Your task to perform on an android device: What is the speed of light? Image 0: 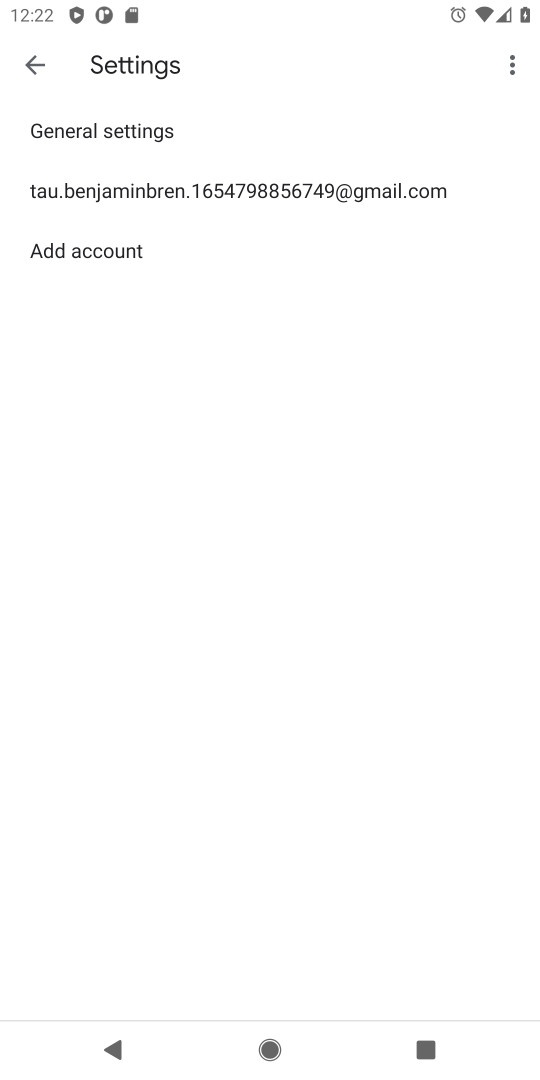
Step 0: press home button
Your task to perform on an android device: What is the speed of light? Image 1: 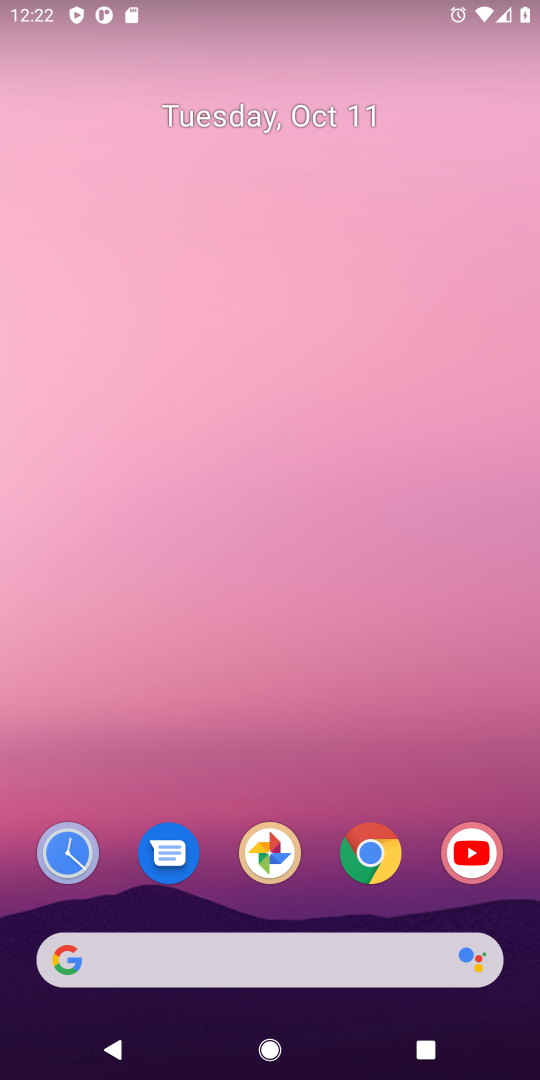
Step 1: drag from (336, 828) to (395, 44)
Your task to perform on an android device: What is the speed of light? Image 2: 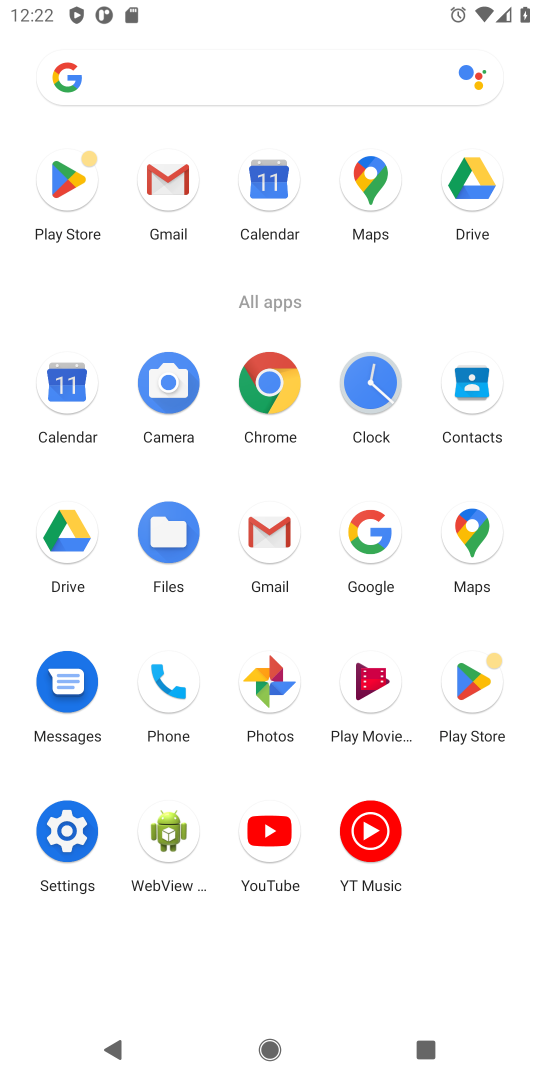
Step 2: click (271, 401)
Your task to perform on an android device: What is the speed of light? Image 3: 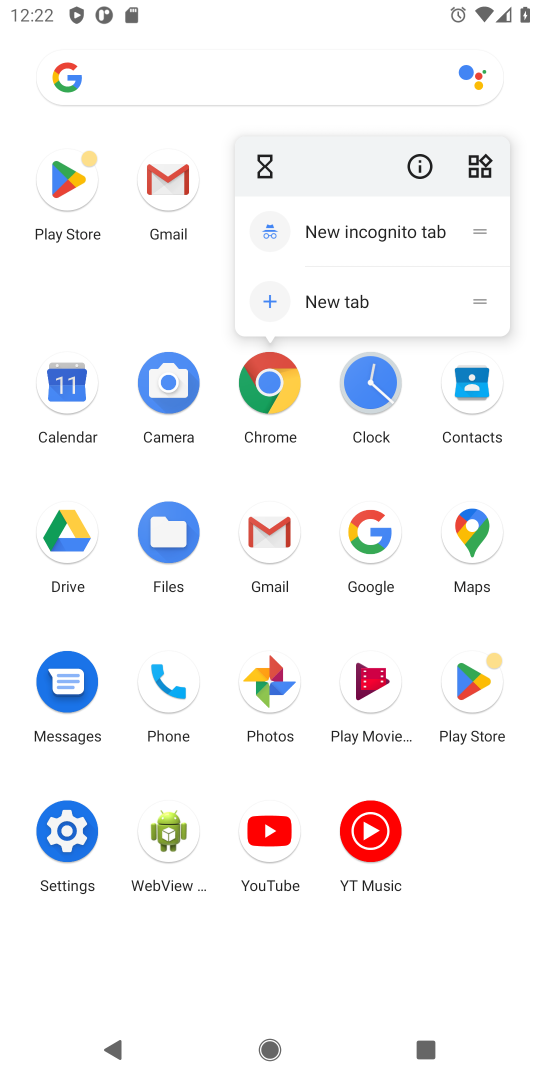
Step 3: click (275, 393)
Your task to perform on an android device: What is the speed of light? Image 4: 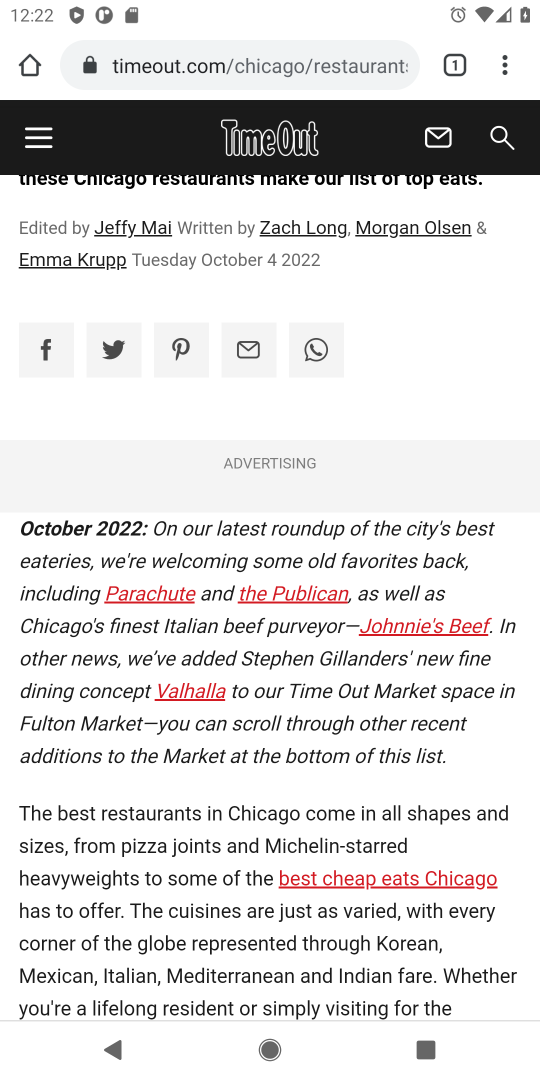
Step 4: click (276, 39)
Your task to perform on an android device: What is the speed of light? Image 5: 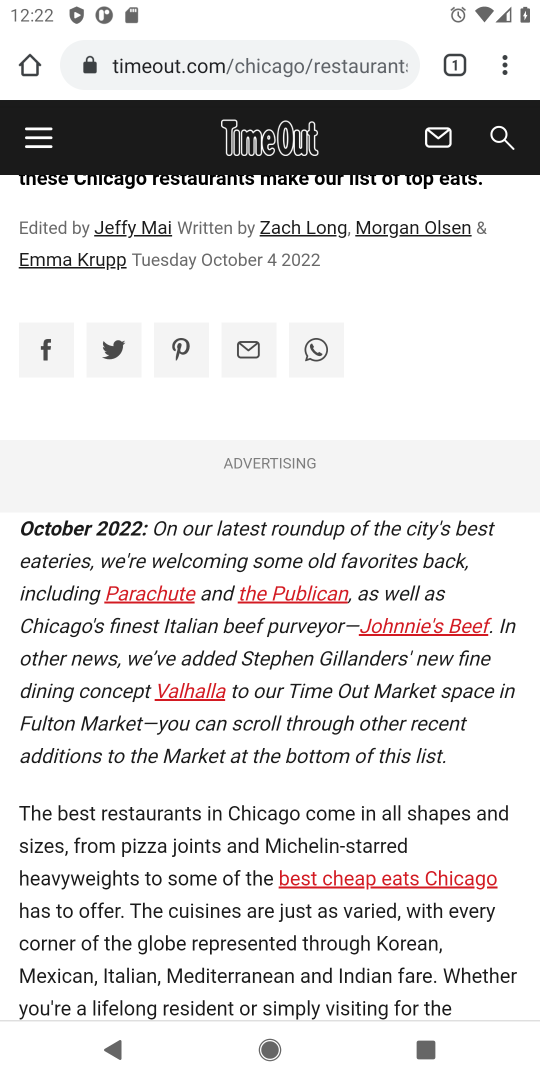
Step 5: click (274, 53)
Your task to perform on an android device: What is the speed of light? Image 6: 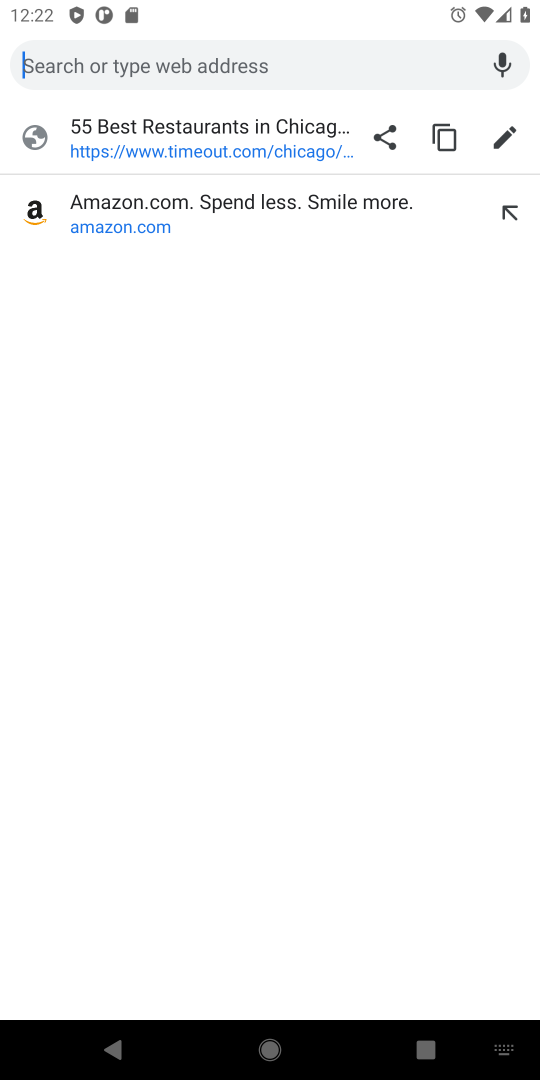
Step 6: type "What is the speed of light?"
Your task to perform on an android device: What is the speed of light? Image 7: 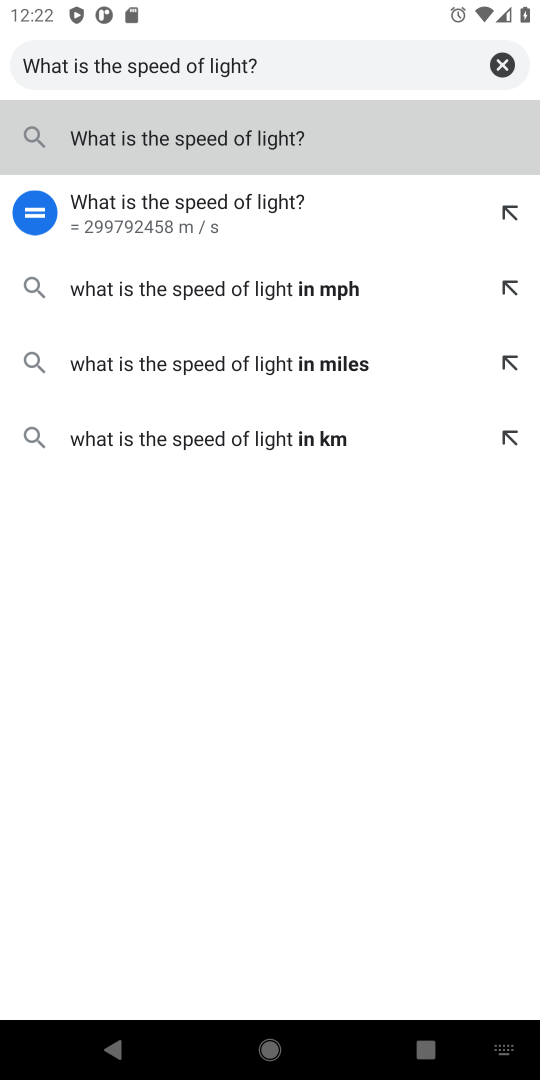
Step 7: type ""
Your task to perform on an android device: What is the speed of light? Image 8: 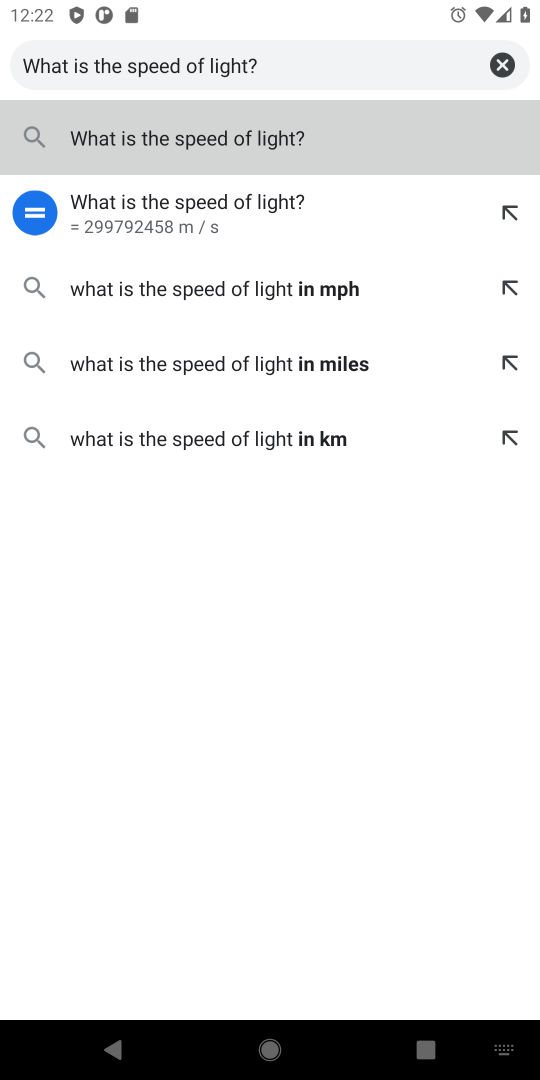
Step 8: type "What is the speed of light?"
Your task to perform on an android device: What is the speed of light? Image 9: 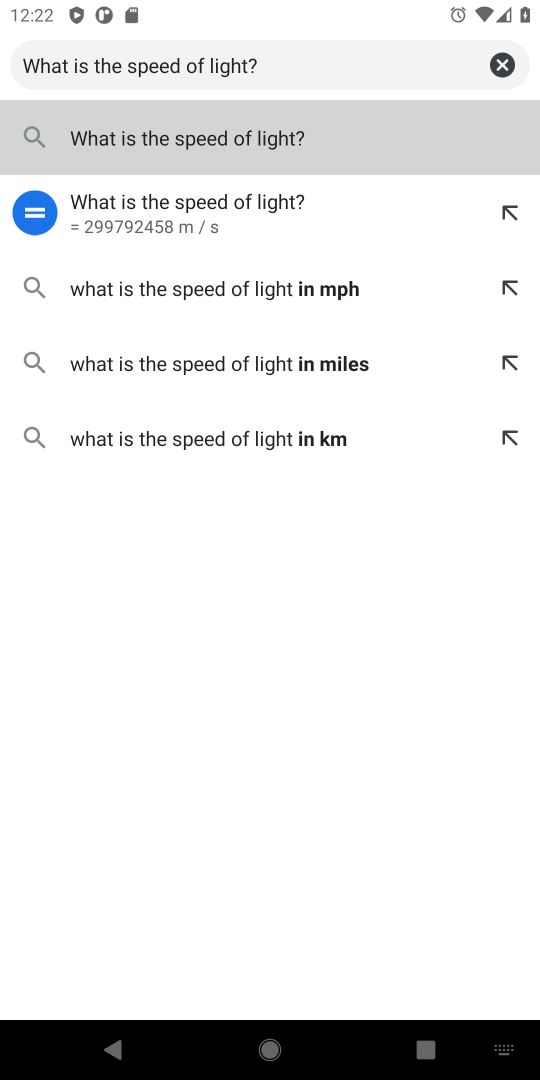
Step 9: click (181, 226)
Your task to perform on an android device: What is the speed of light? Image 10: 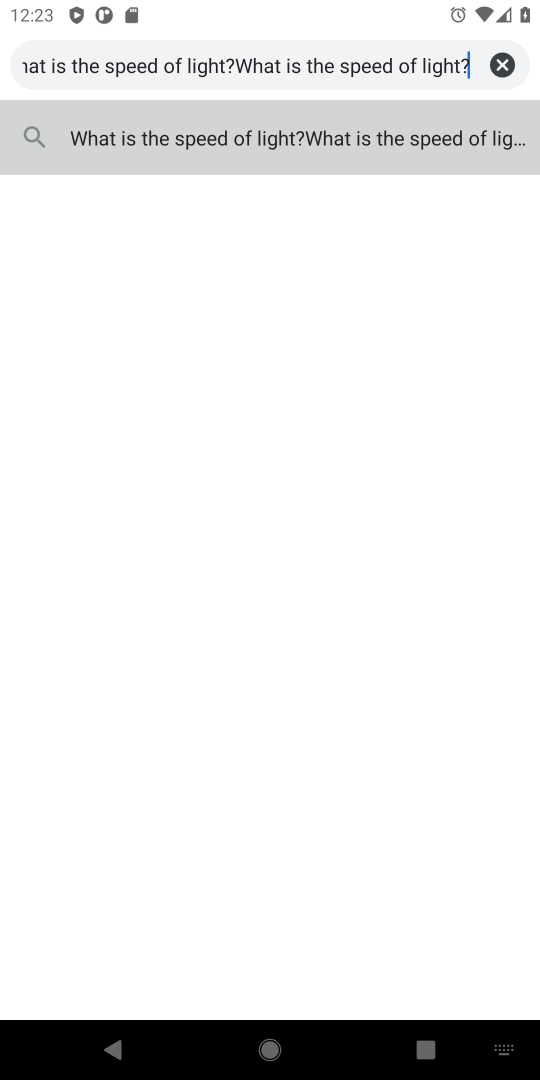
Step 10: press enter
Your task to perform on an android device: What is the speed of light? Image 11: 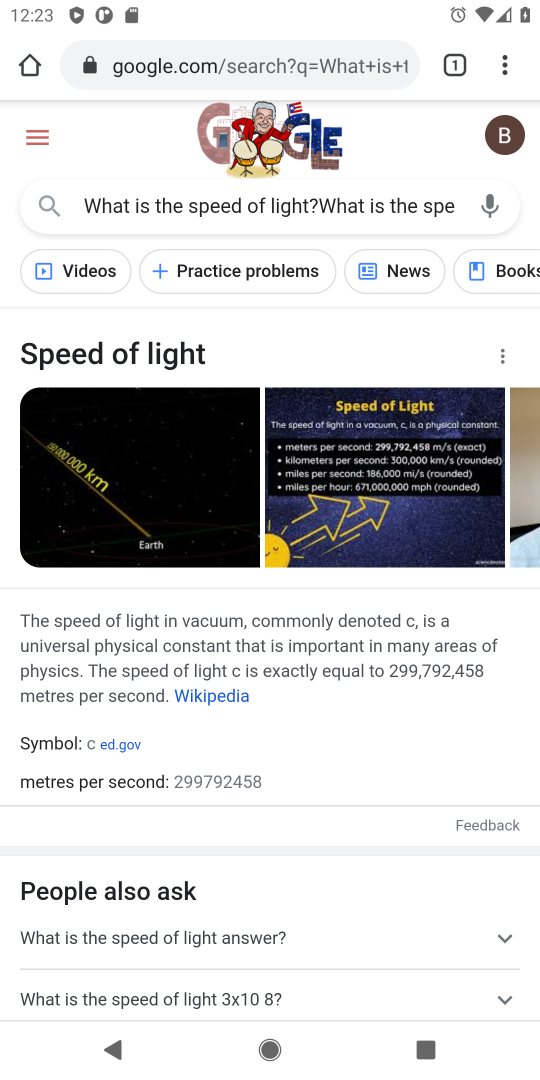
Step 11: click (227, 688)
Your task to perform on an android device: What is the speed of light? Image 12: 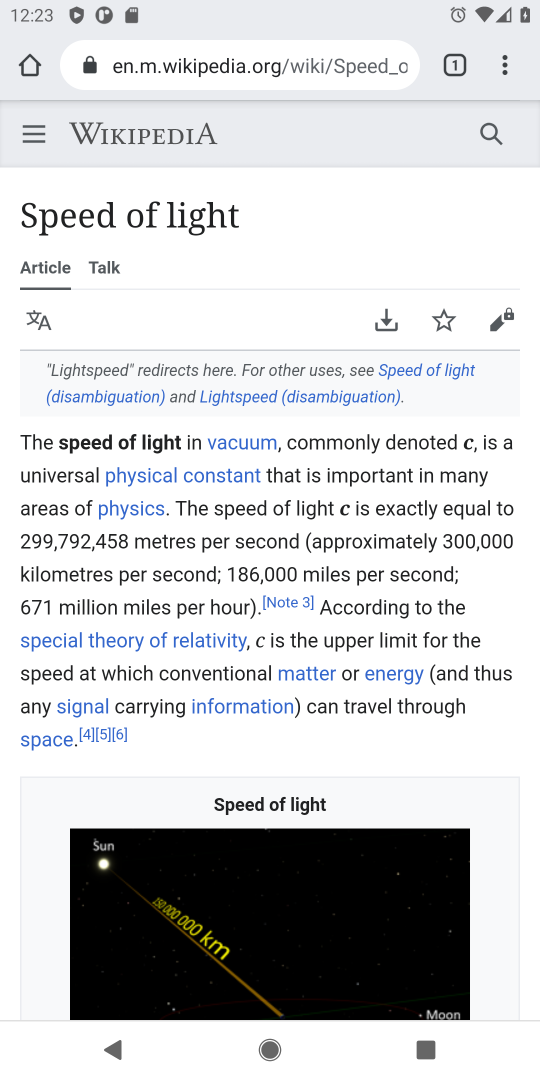
Step 12: drag from (345, 802) to (357, 408)
Your task to perform on an android device: What is the speed of light? Image 13: 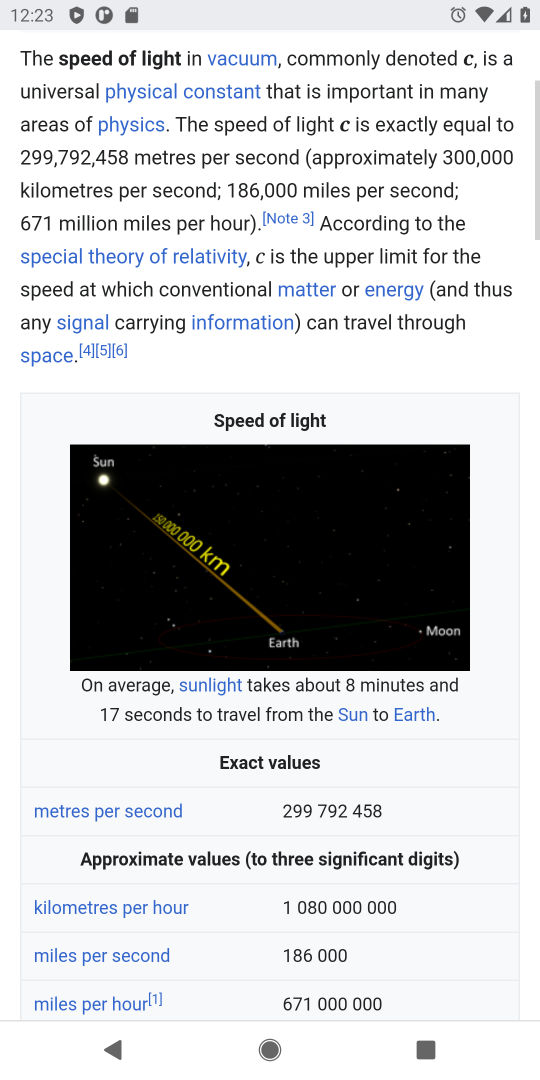
Step 13: drag from (437, 749) to (393, 361)
Your task to perform on an android device: What is the speed of light? Image 14: 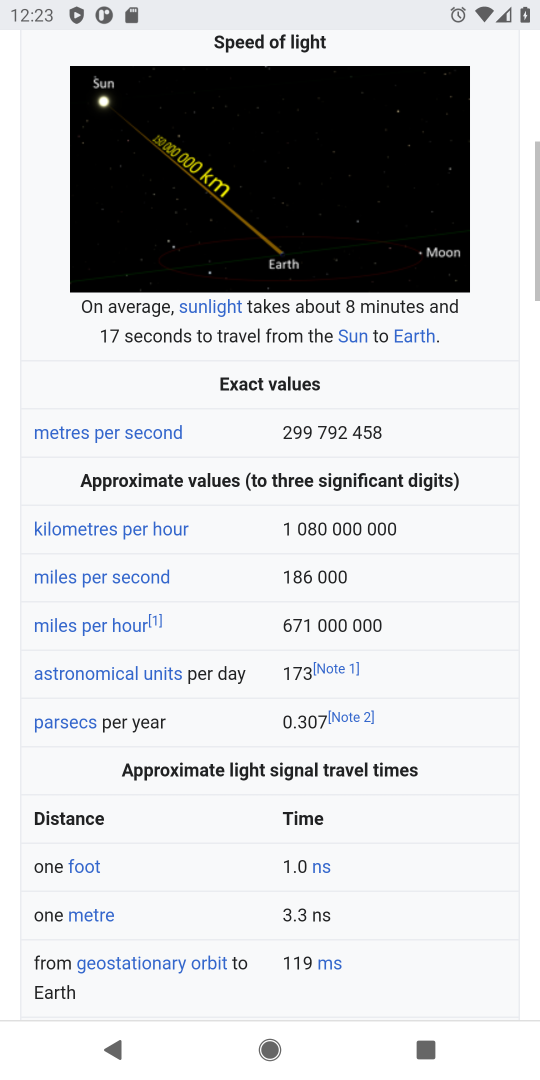
Step 14: drag from (510, 655) to (425, 382)
Your task to perform on an android device: What is the speed of light? Image 15: 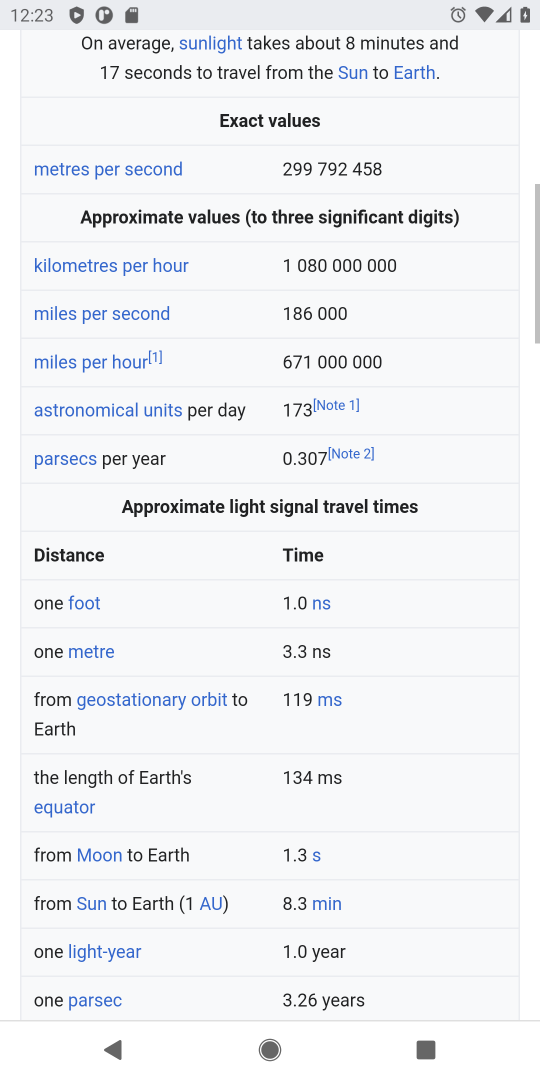
Step 15: drag from (396, 697) to (414, 446)
Your task to perform on an android device: What is the speed of light? Image 16: 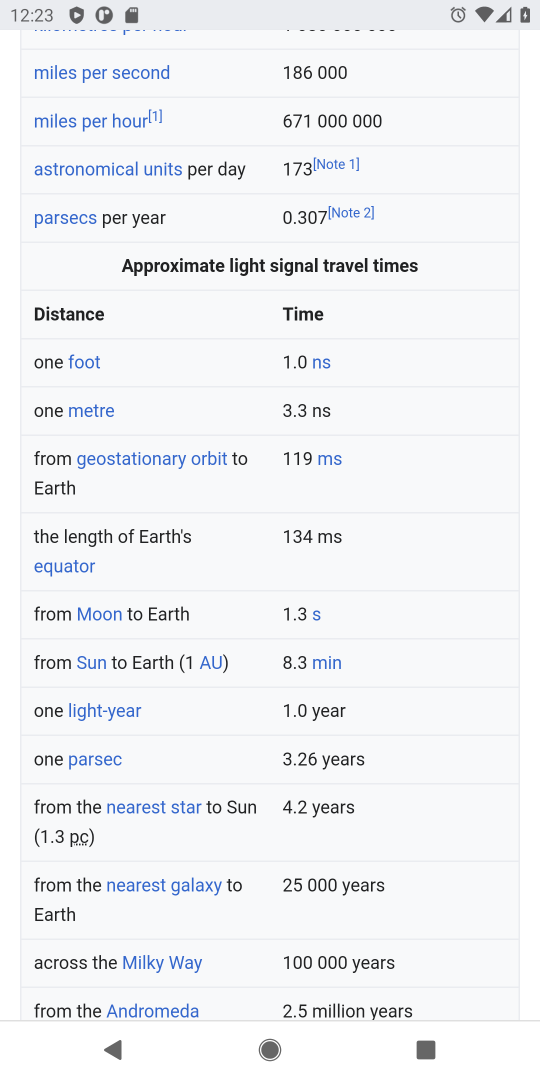
Step 16: drag from (425, 777) to (401, 593)
Your task to perform on an android device: What is the speed of light? Image 17: 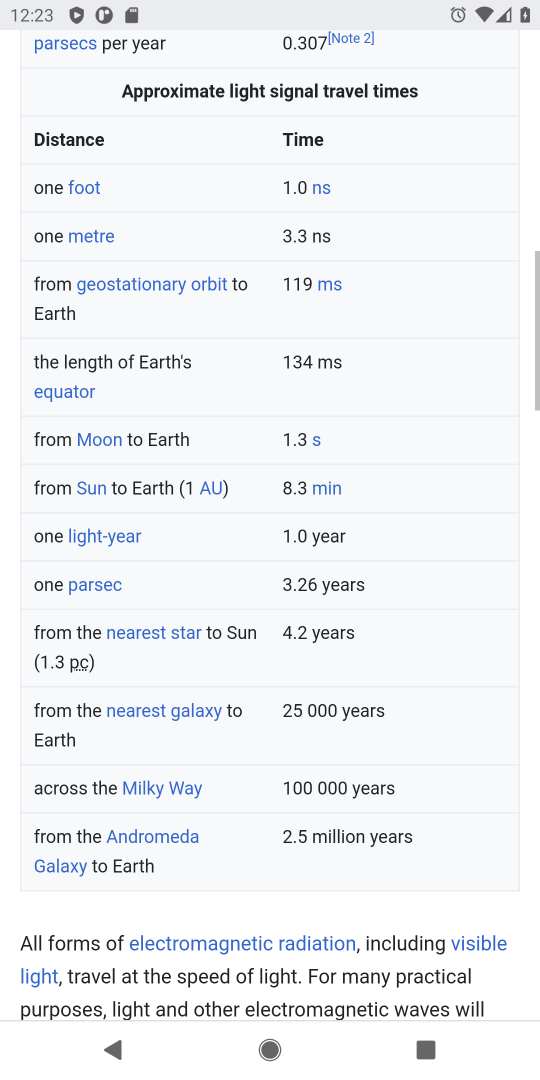
Step 17: drag from (395, 843) to (366, 661)
Your task to perform on an android device: What is the speed of light? Image 18: 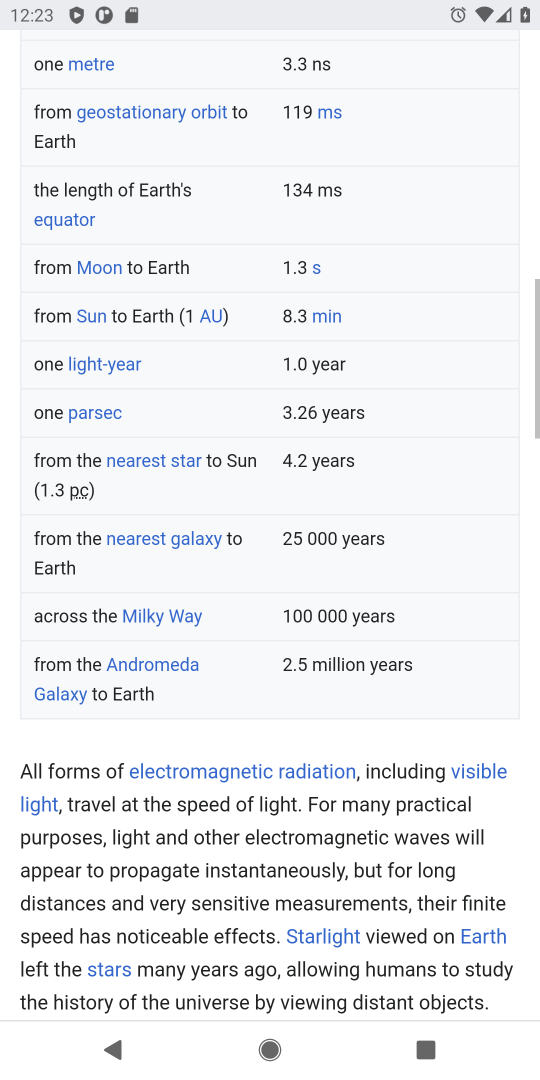
Step 18: drag from (371, 870) to (360, 607)
Your task to perform on an android device: What is the speed of light? Image 19: 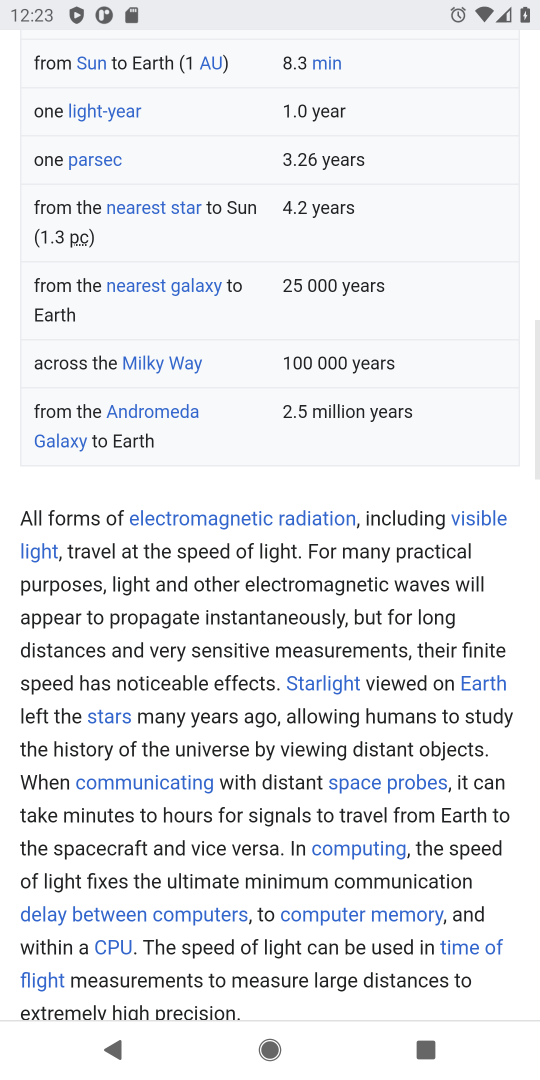
Step 19: drag from (432, 919) to (374, 650)
Your task to perform on an android device: What is the speed of light? Image 20: 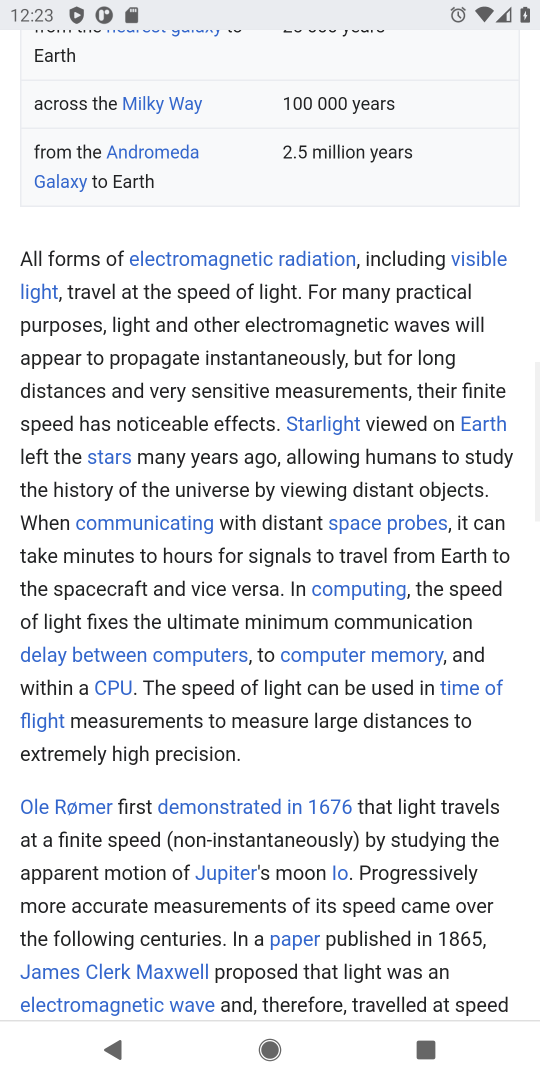
Step 20: drag from (403, 807) to (398, 664)
Your task to perform on an android device: What is the speed of light? Image 21: 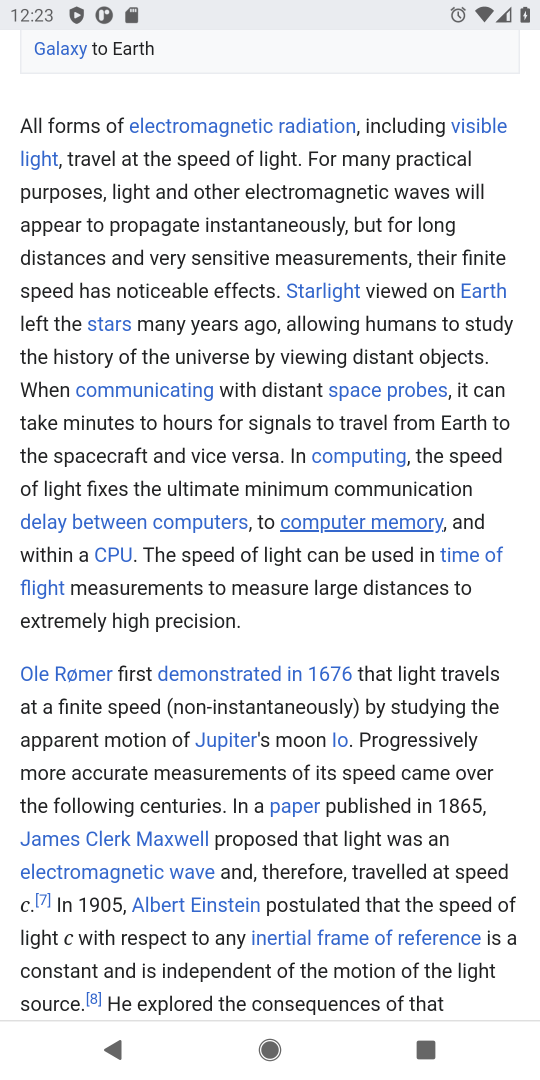
Step 21: drag from (377, 700) to (386, 343)
Your task to perform on an android device: What is the speed of light? Image 22: 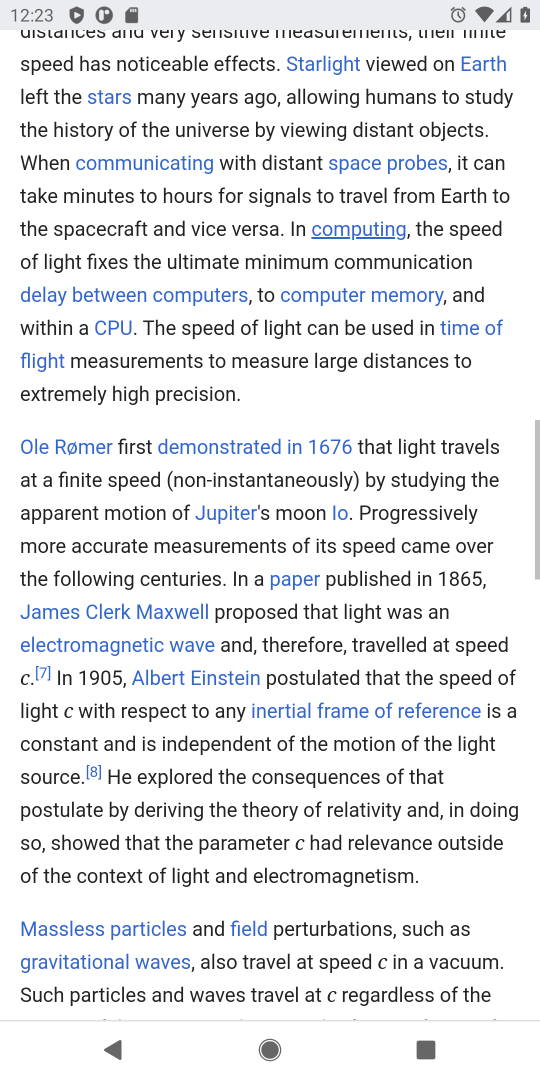
Step 22: drag from (364, 675) to (395, 362)
Your task to perform on an android device: What is the speed of light? Image 23: 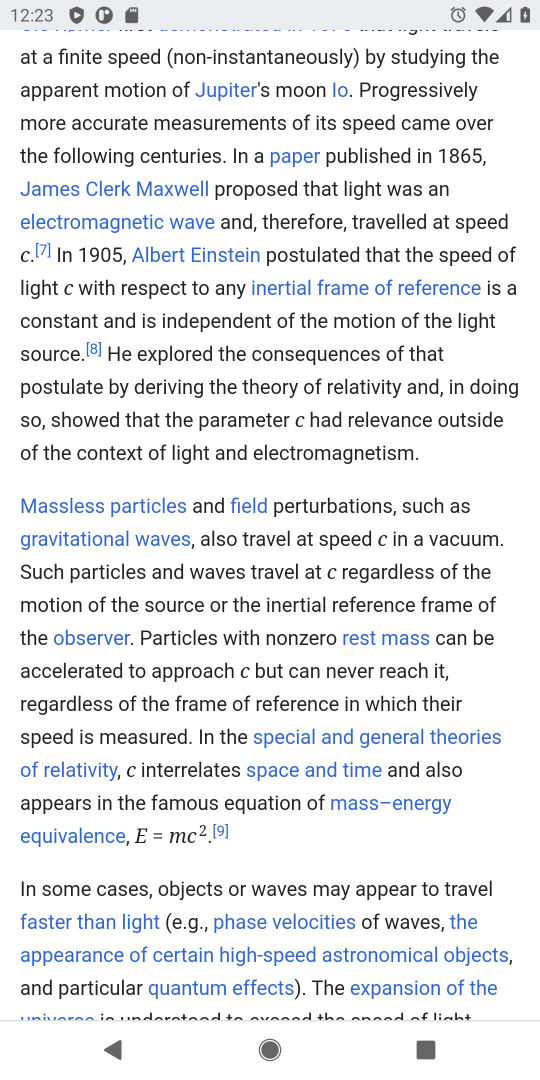
Step 23: drag from (356, 718) to (402, 543)
Your task to perform on an android device: What is the speed of light? Image 24: 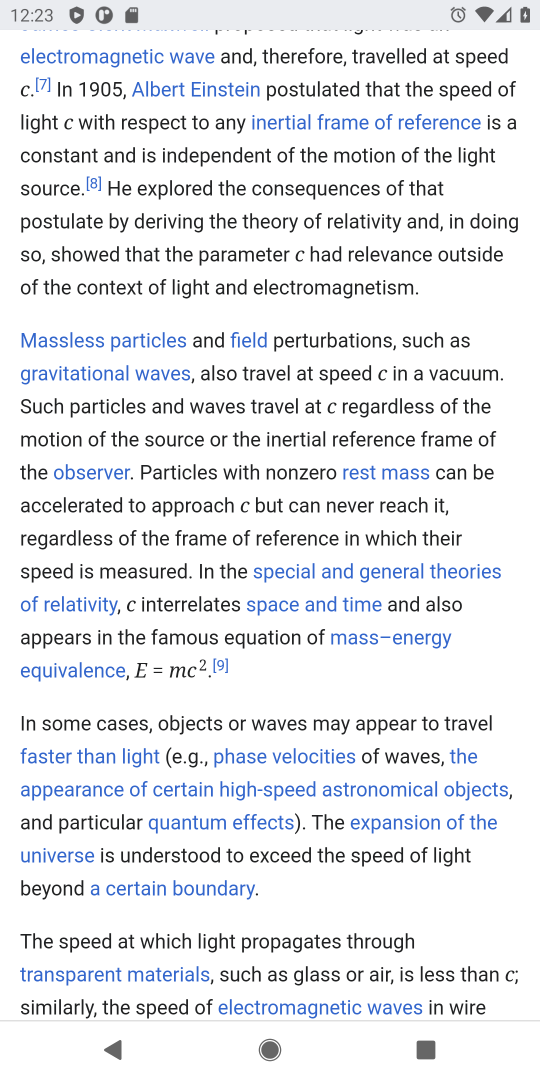
Step 24: drag from (412, 689) to (394, 435)
Your task to perform on an android device: What is the speed of light? Image 25: 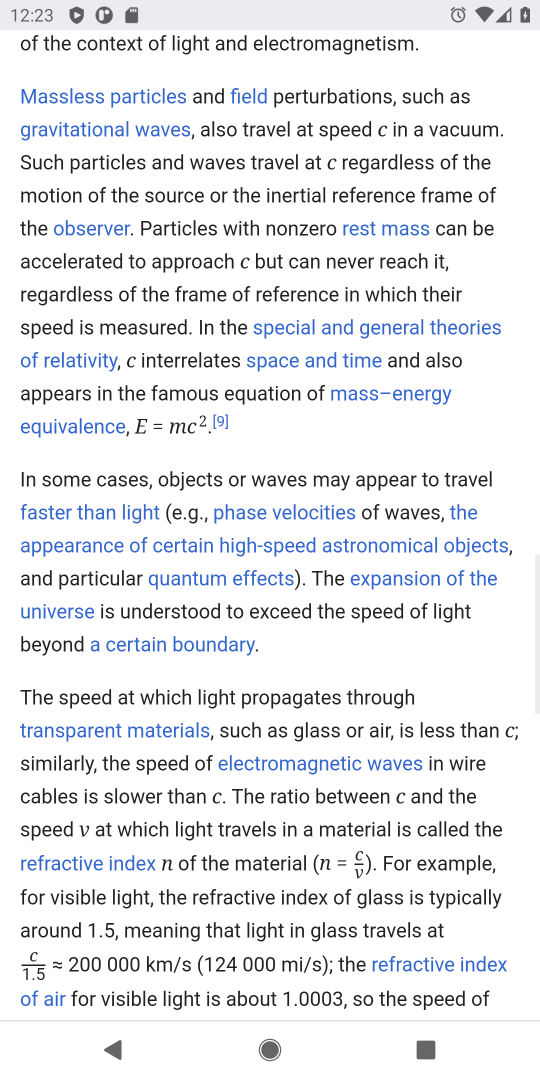
Step 25: drag from (415, 672) to (401, 428)
Your task to perform on an android device: What is the speed of light? Image 26: 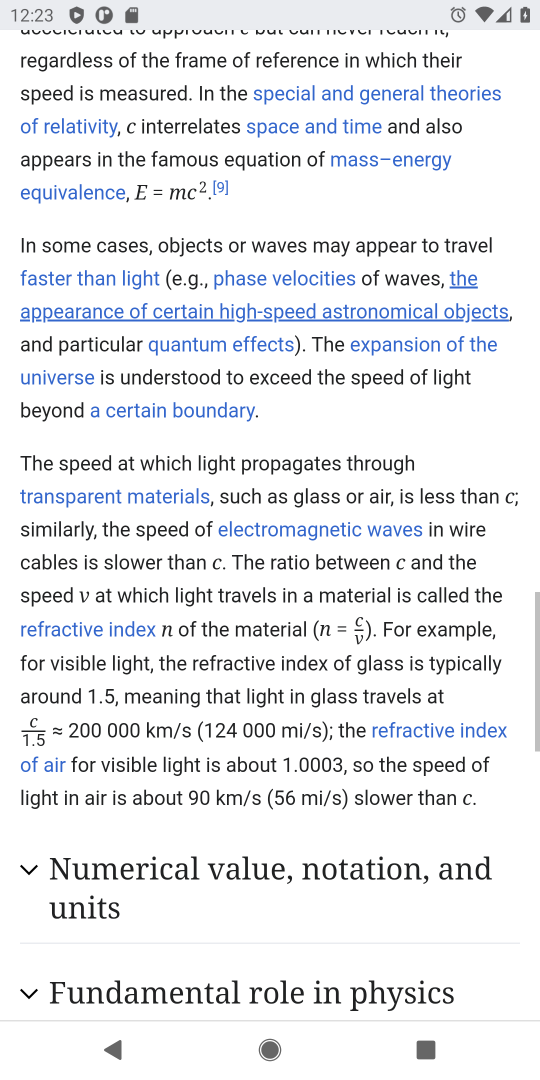
Step 26: drag from (382, 706) to (370, 477)
Your task to perform on an android device: What is the speed of light? Image 27: 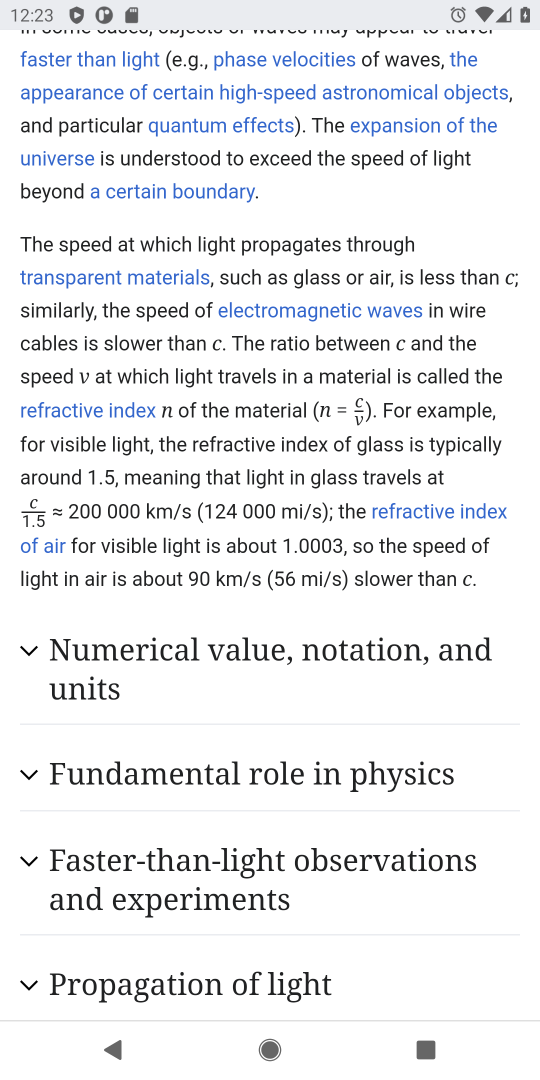
Step 27: drag from (401, 757) to (376, 529)
Your task to perform on an android device: What is the speed of light? Image 28: 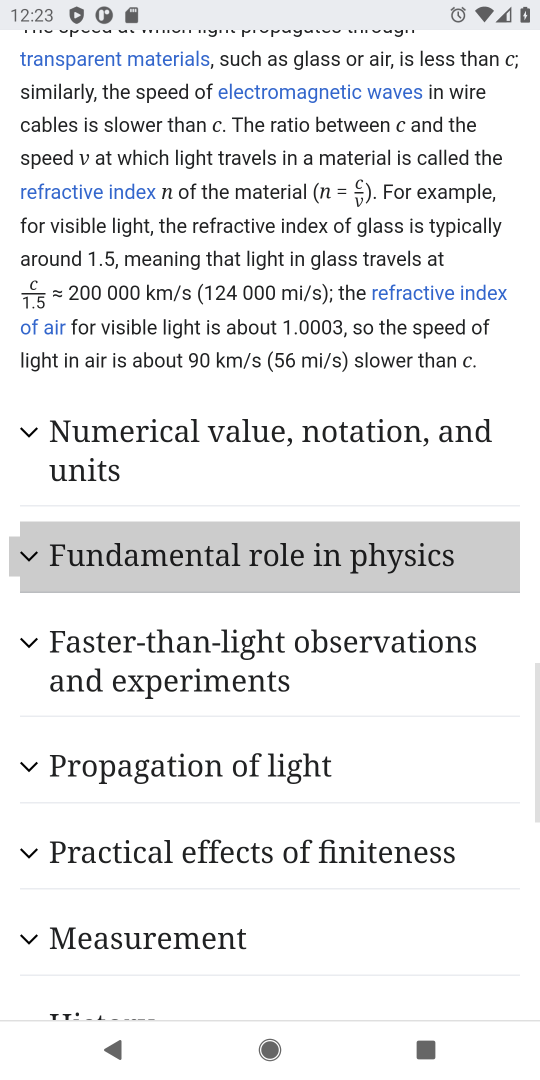
Step 28: drag from (437, 771) to (463, 576)
Your task to perform on an android device: What is the speed of light? Image 29: 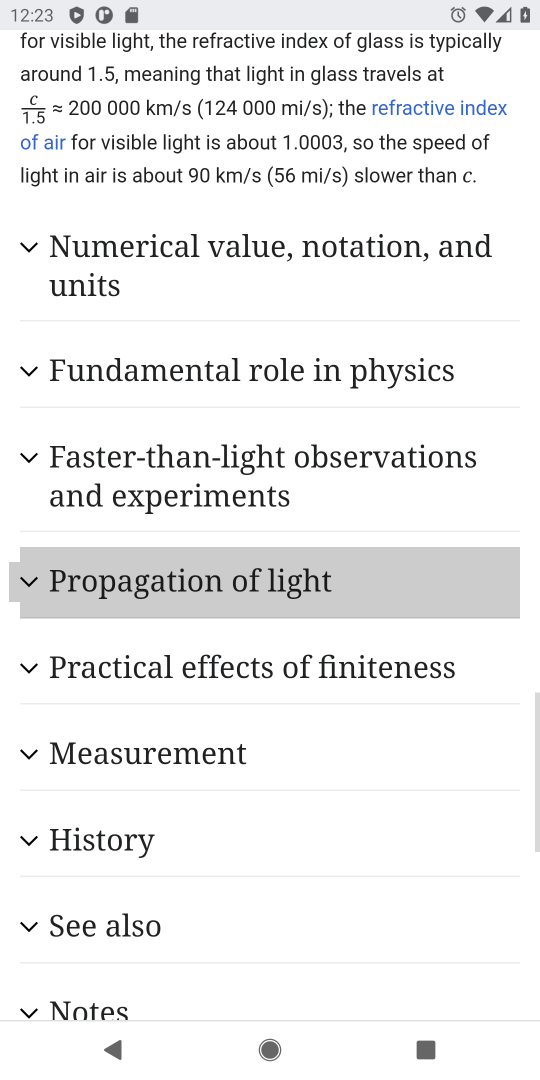
Step 29: drag from (465, 776) to (466, 591)
Your task to perform on an android device: What is the speed of light? Image 30: 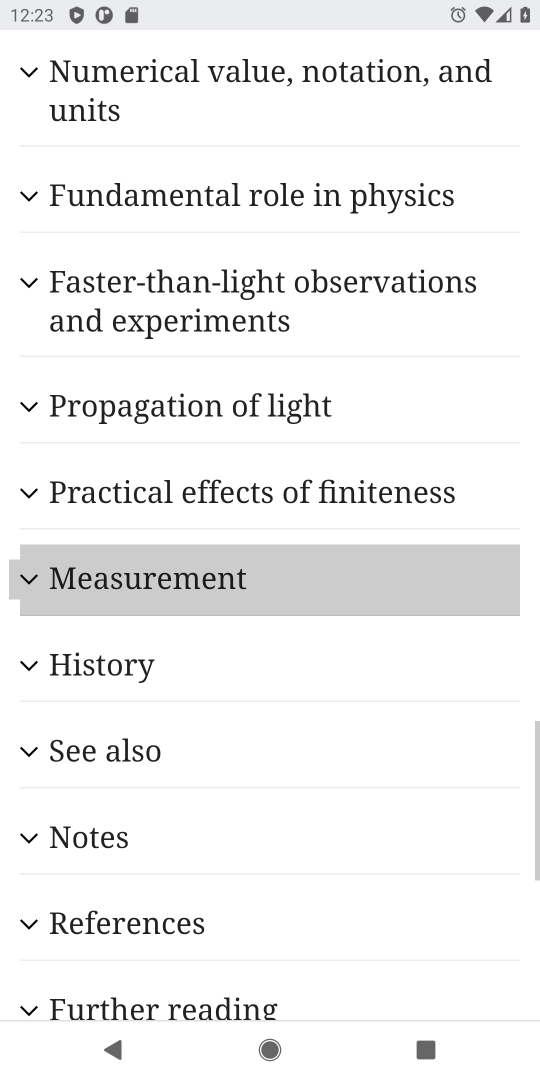
Step 30: drag from (525, 808) to (510, 615)
Your task to perform on an android device: What is the speed of light? Image 31: 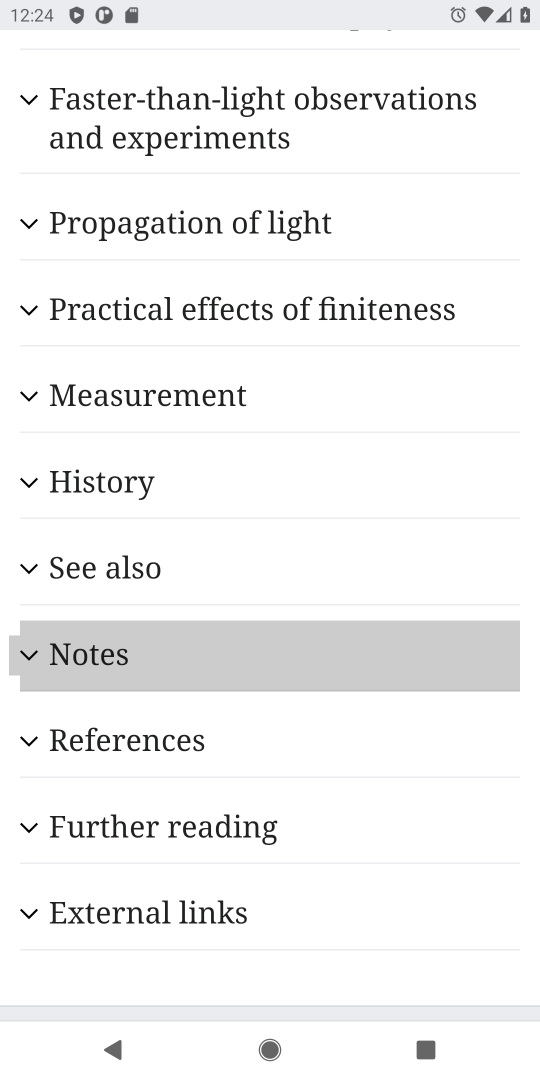
Step 31: drag from (538, 814) to (508, 582)
Your task to perform on an android device: What is the speed of light? Image 32: 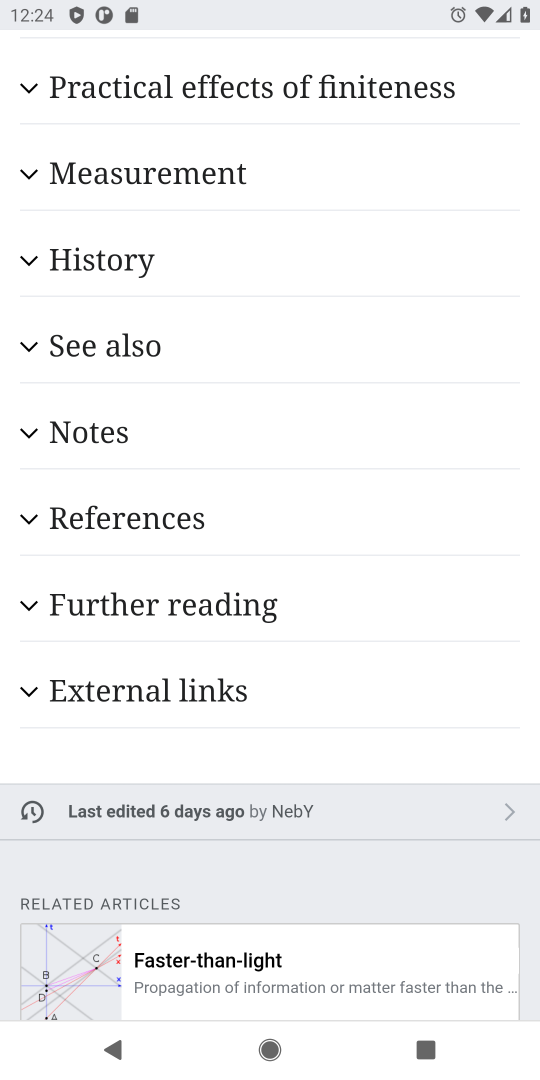
Step 32: drag from (238, 697) to (293, 297)
Your task to perform on an android device: What is the speed of light? Image 33: 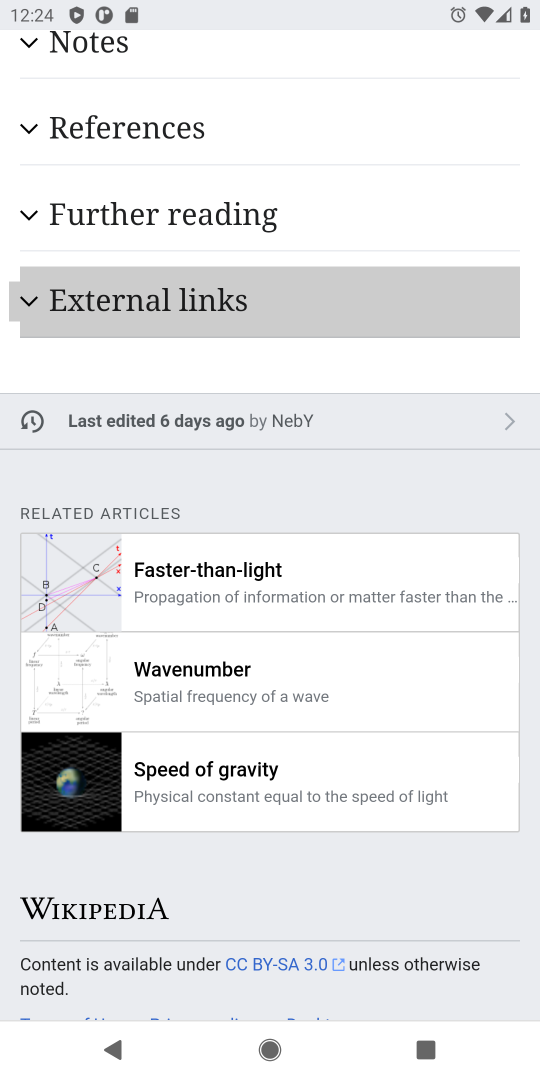
Step 33: press back button
Your task to perform on an android device: What is the speed of light? Image 34: 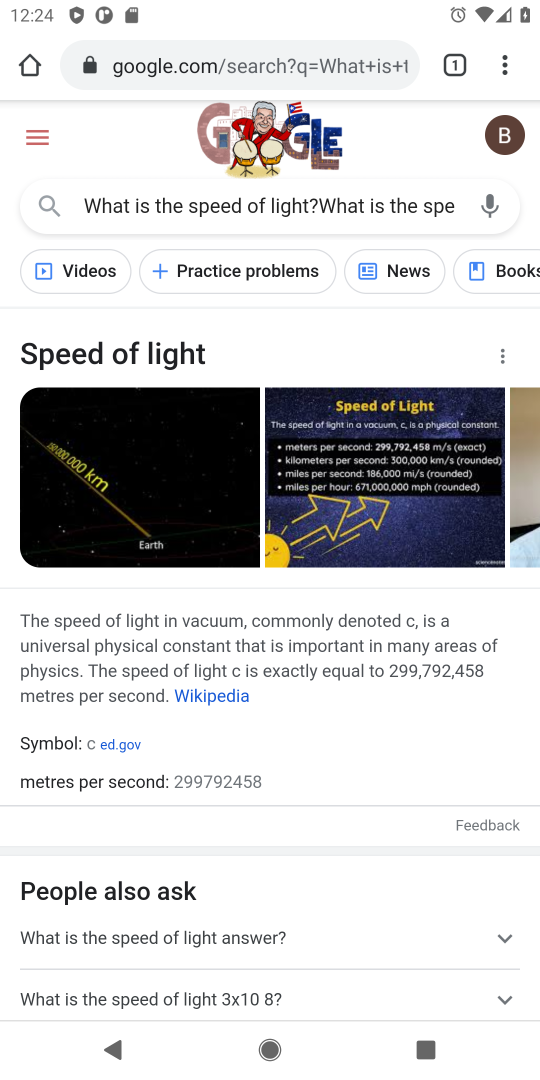
Step 34: drag from (348, 723) to (339, 247)
Your task to perform on an android device: What is the speed of light? Image 35: 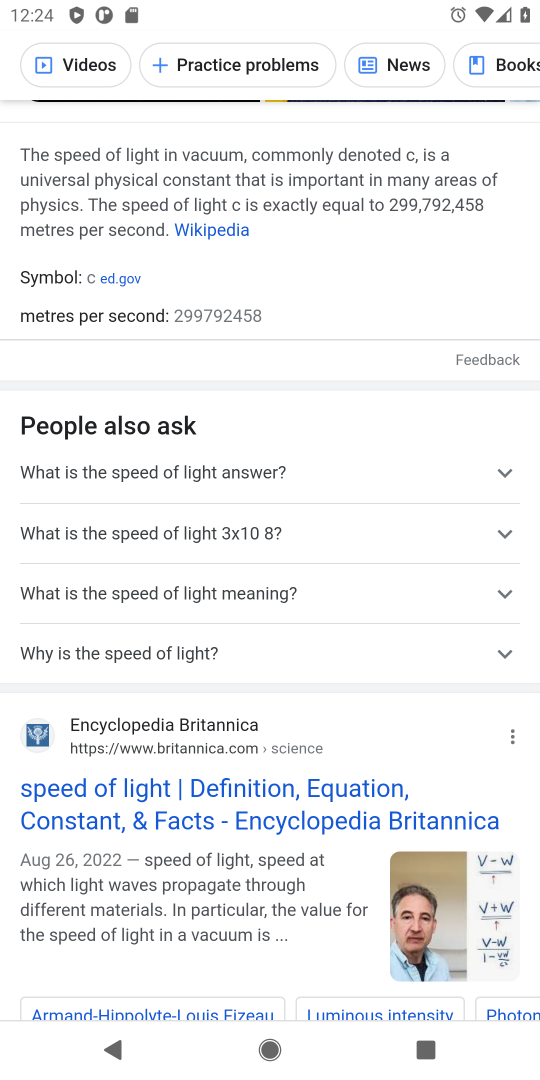
Step 35: drag from (293, 629) to (342, 309)
Your task to perform on an android device: What is the speed of light? Image 36: 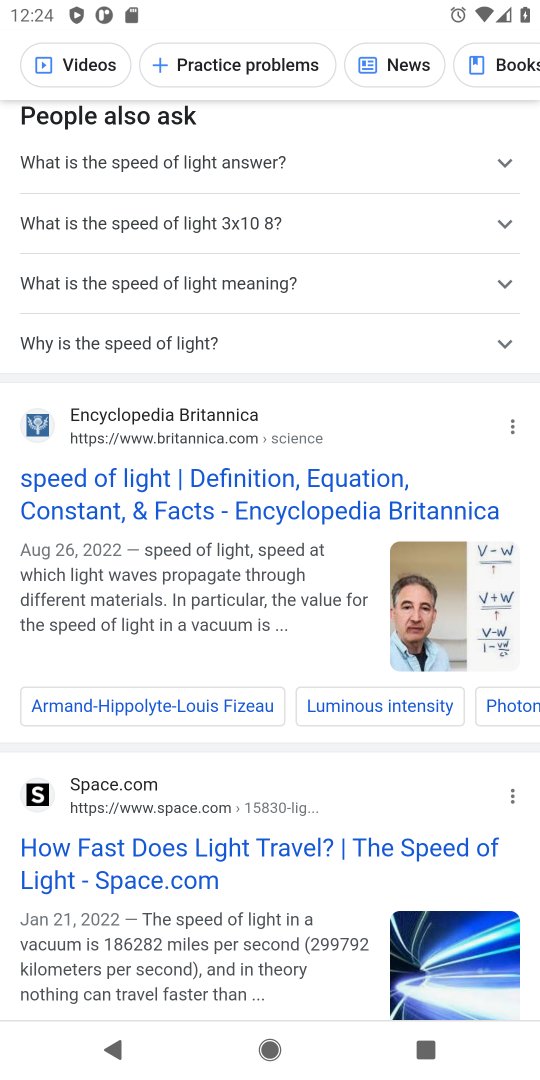
Step 36: click (314, 520)
Your task to perform on an android device: What is the speed of light? Image 37: 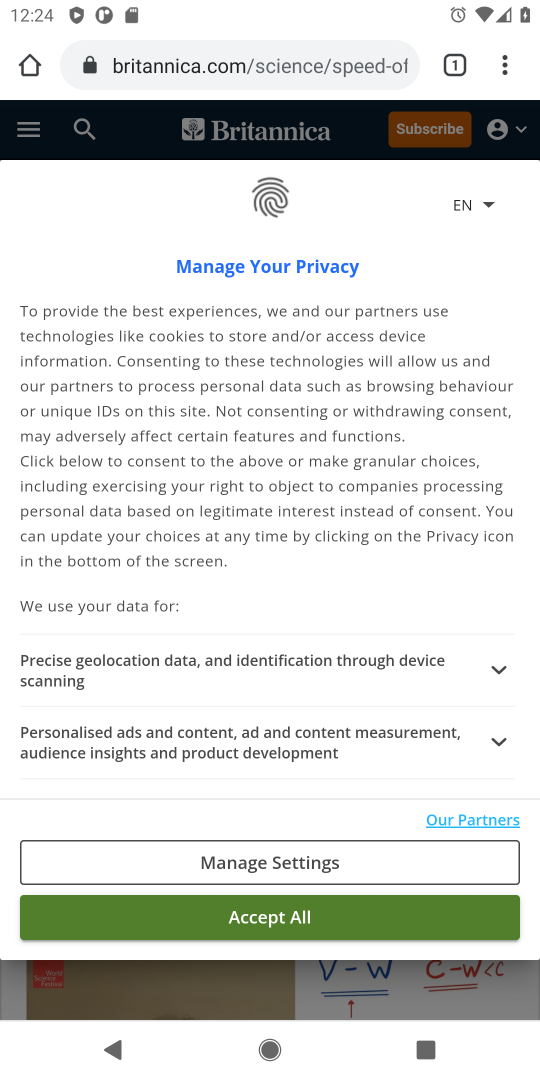
Step 37: task complete